Your task to perform on an android device: turn on priority inbox in the gmail app Image 0: 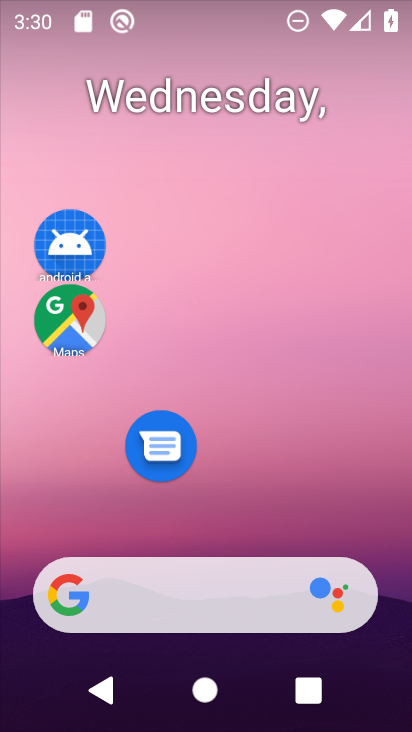
Step 0: drag from (348, 508) to (303, 33)
Your task to perform on an android device: turn on priority inbox in the gmail app Image 1: 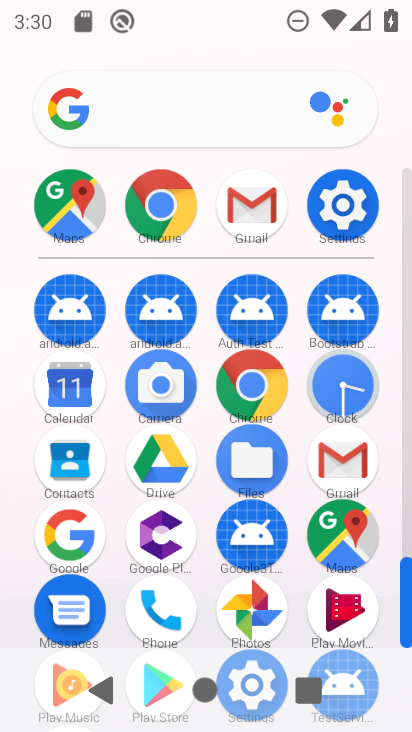
Step 1: click (238, 199)
Your task to perform on an android device: turn on priority inbox in the gmail app Image 2: 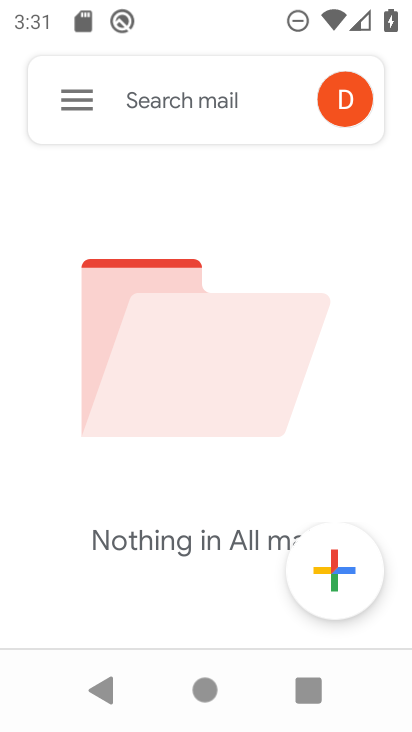
Step 2: click (85, 121)
Your task to perform on an android device: turn on priority inbox in the gmail app Image 3: 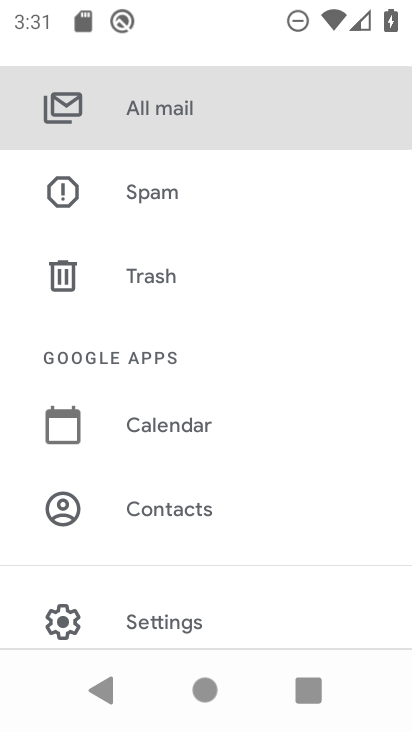
Step 3: click (163, 620)
Your task to perform on an android device: turn on priority inbox in the gmail app Image 4: 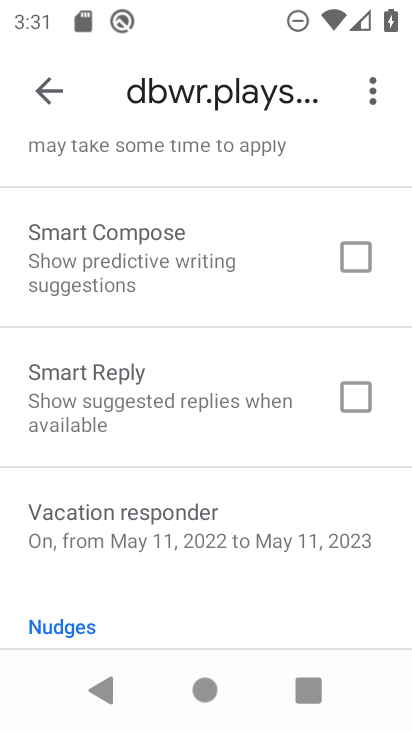
Step 4: drag from (104, 433) to (89, 693)
Your task to perform on an android device: turn on priority inbox in the gmail app Image 5: 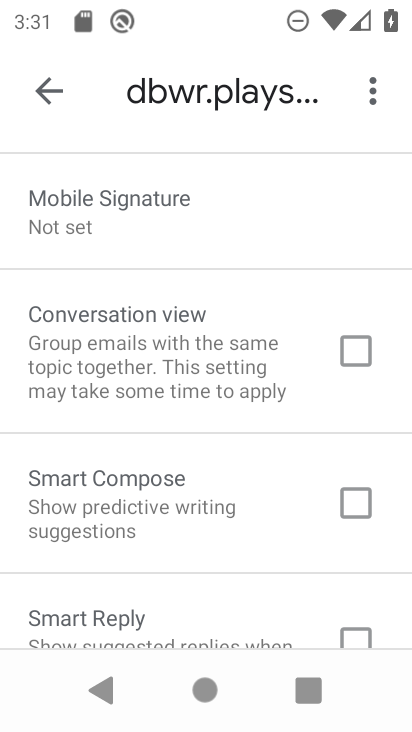
Step 5: drag from (142, 300) to (157, 545)
Your task to perform on an android device: turn on priority inbox in the gmail app Image 6: 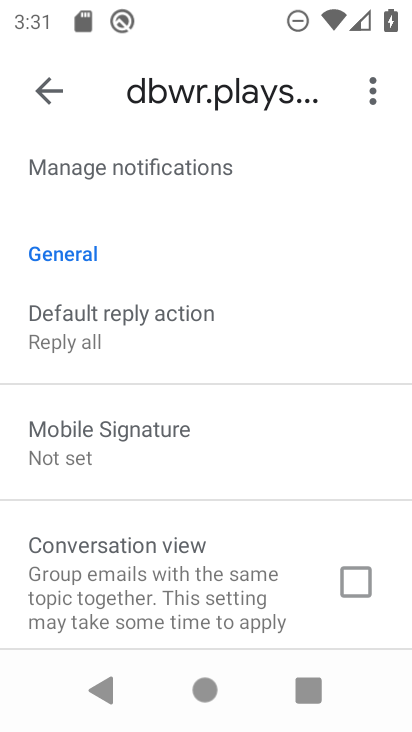
Step 6: drag from (157, 292) to (198, 640)
Your task to perform on an android device: turn on priority inbox in the gmail app Image 7: 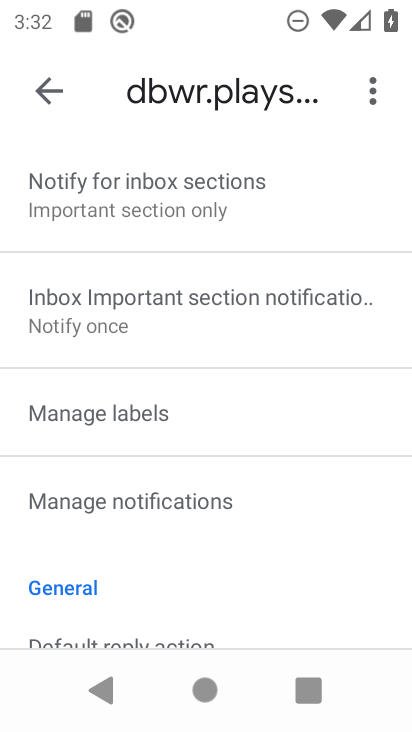
Step 7: drag from (157, 315) to (136, 632)
Your task to perform on an android device: turn on priority inbox in the gmail app Image 8: 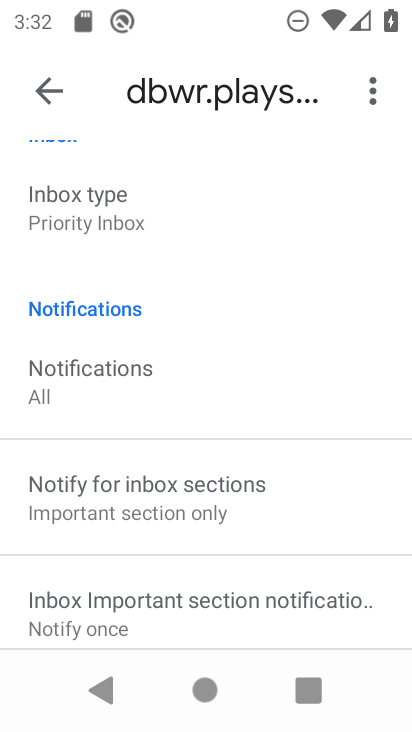
Step 8: drag from (152, 288) to (86, 564)
Your task to perform on an android device: turn on priority inbox in the gmail app Image 9: 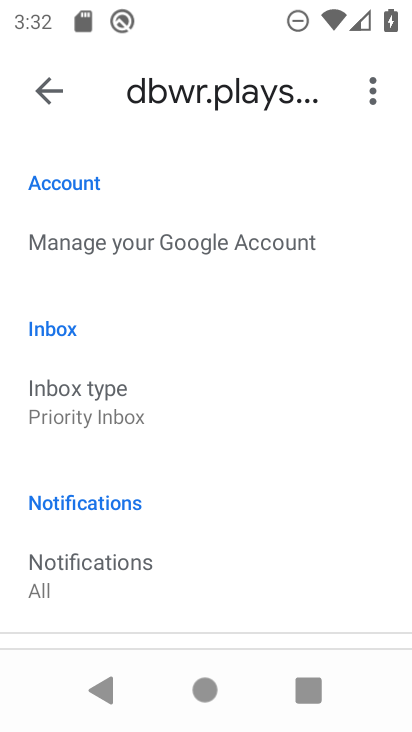
Step 9: click (108, 600)
Your task to perform on an android device: turn on priority inbox in the gmail app Image 10: 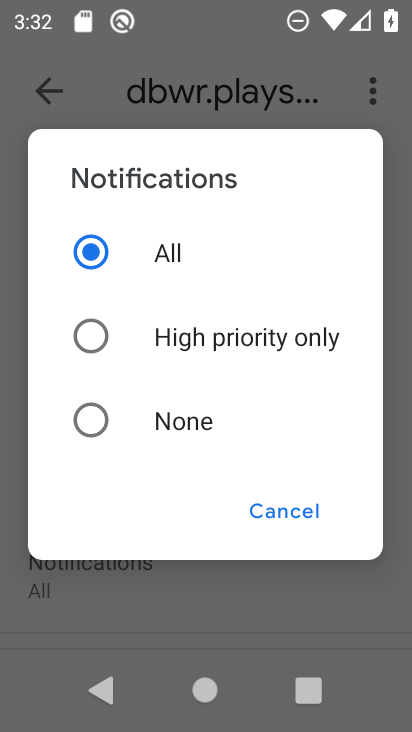
Step 10: click (240, 336)
Your task to perform on an android device: turn on priority inbox in the gmail app Image 11: 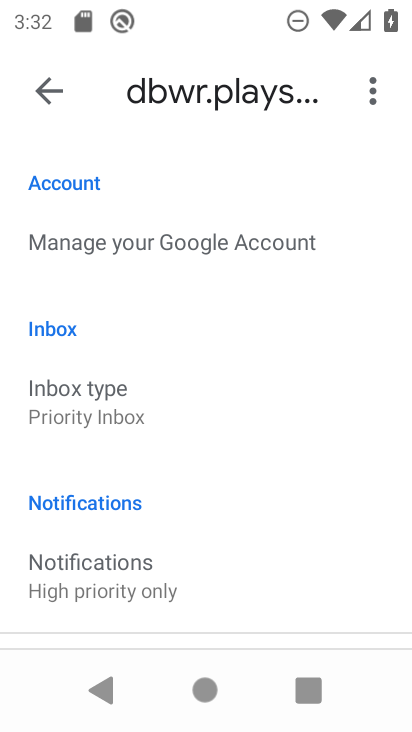
Step 11: task complete